Your task to perform on an android device: Open notification settings Image 0: 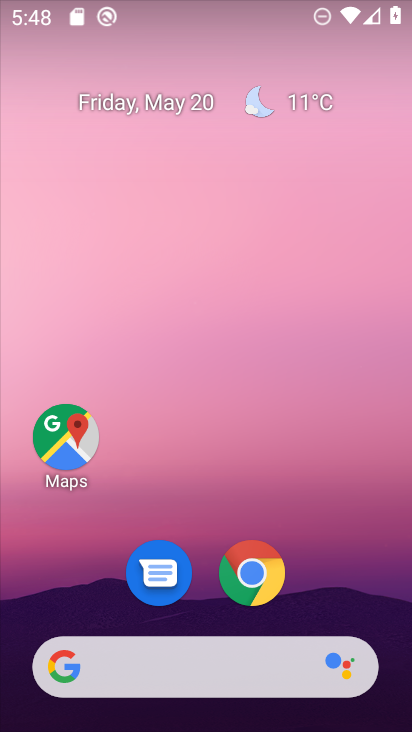
Step 0: drag from (197, 172) to (179, 129)
Your task to perform on an android device: Open notification settings Image 1: 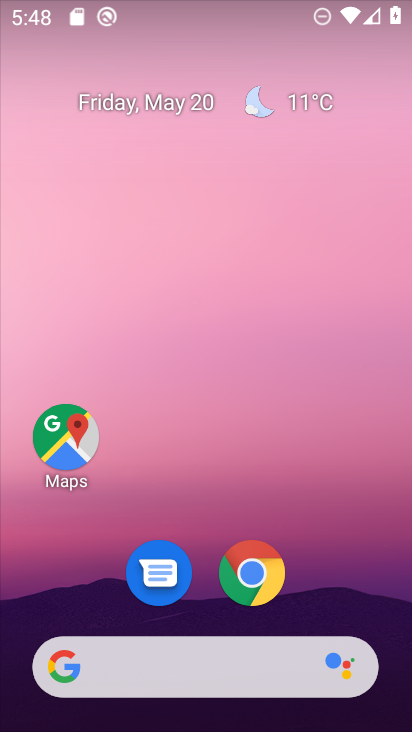
Step 1: drag from (337, 525) to (156, 7)
Your task to perform on an android device: Open notification settings Image 2: 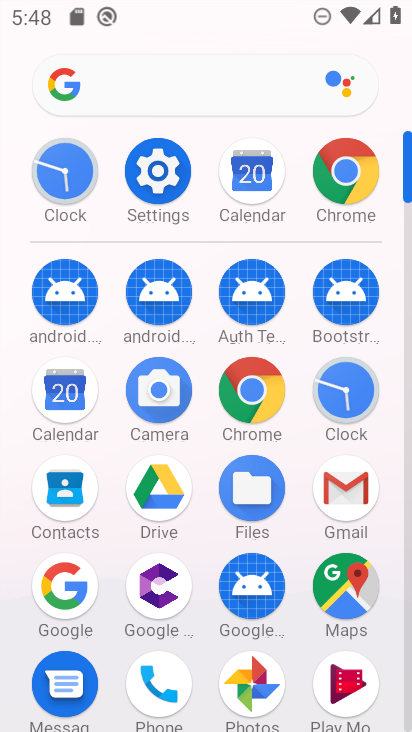
Step 2: click (150, 182)
Your task to perform on an android device: Open notification settings Image 3: 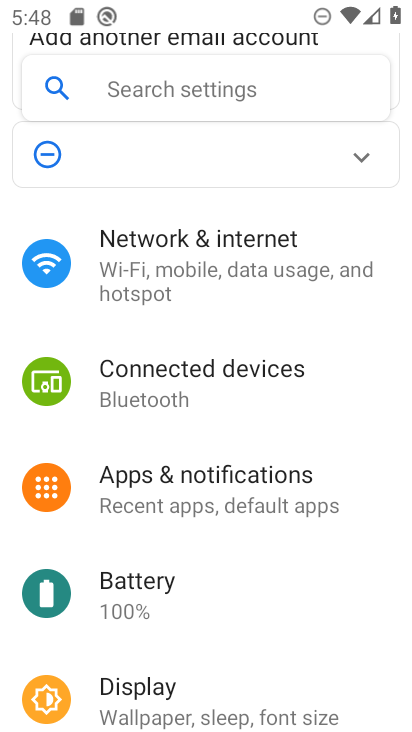
Step 3: click (255, 506)
Your task to perform on an android device: Open notification settings Image 4: 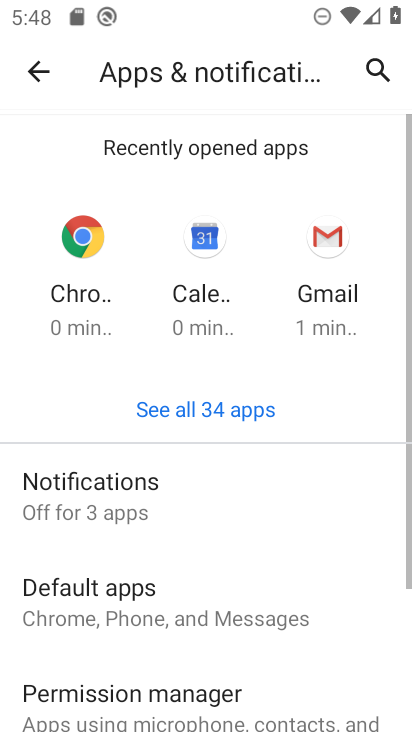
Step 4: task complete